Your task to perform on an android device: Go to accessibility settings Image 0: 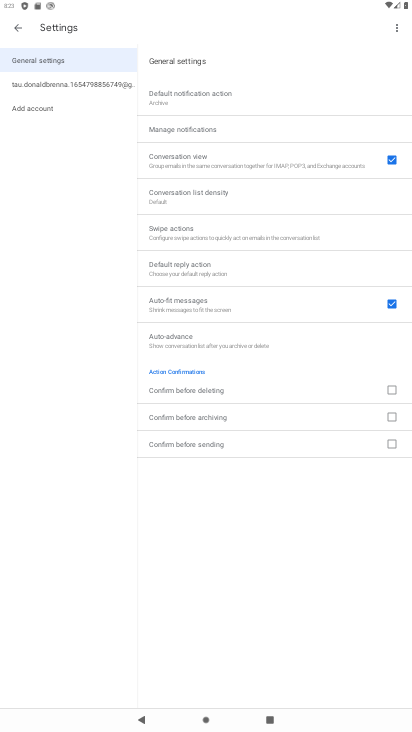
Step 0: press home button
Your task to perform on an android device: Go to accessibility settings Image 1: 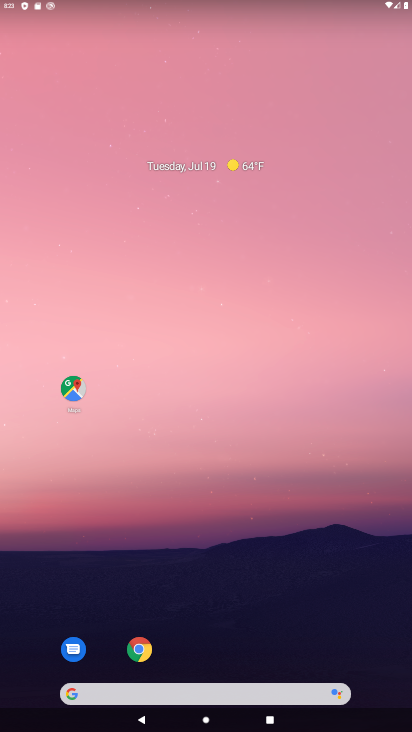
Step 1: drag from (190, 649) to (218, 65)
Your task to perform on an android device: Go to accessibility settings Image 2: 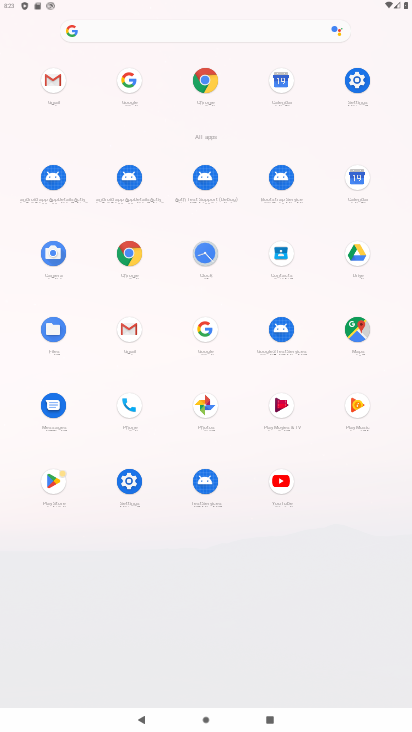
Step 2: click (353, 91)
Your task to perform on an android device: Go to accessibility settings Image 3: 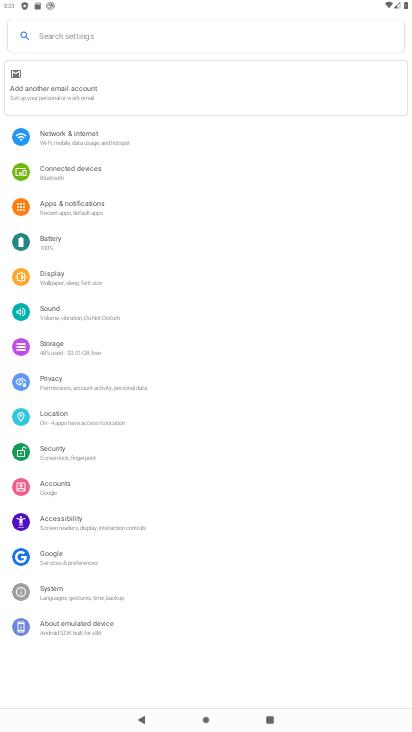
Step 3: click (75, 528)
Your task to perform on an android device: Go to accessibility settings Image 4: 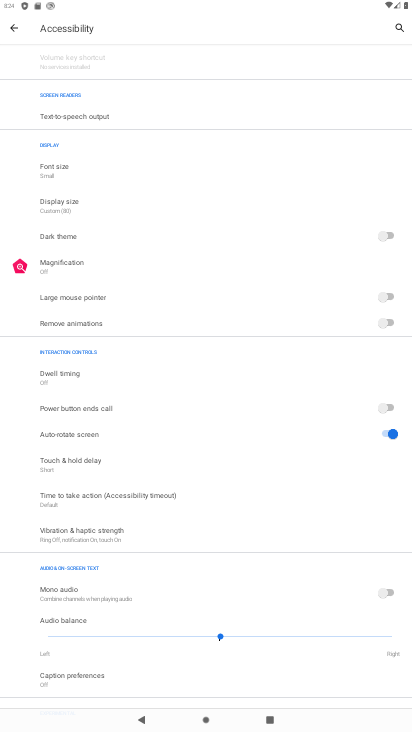
Step 4: task complete